Your task to perform on an android device: Show me productivity apps on the Play Store Image 0: 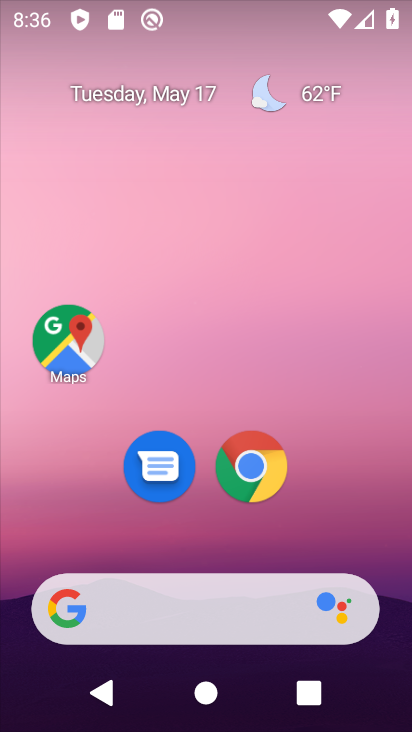
Step 0: drag from (218, 450) to (238, 12)
Your task to perform on an android device: Show me productivity apps on the Play Store Image 1: 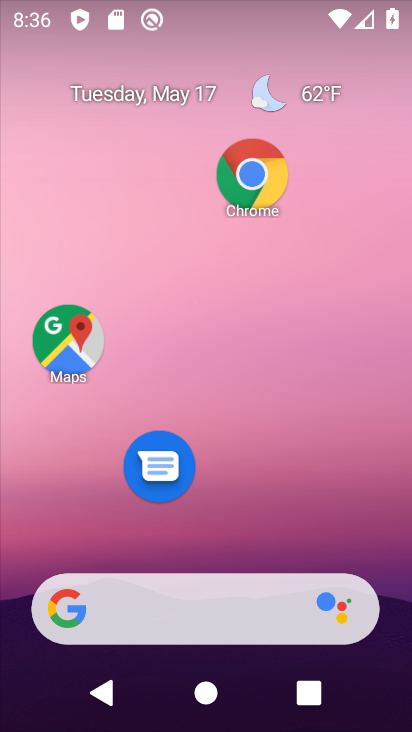
Step 1: drag from (204, 538) to (201, 200)
Your task to perform on an android device: Show me productivity apps on the Play Store Image 2: 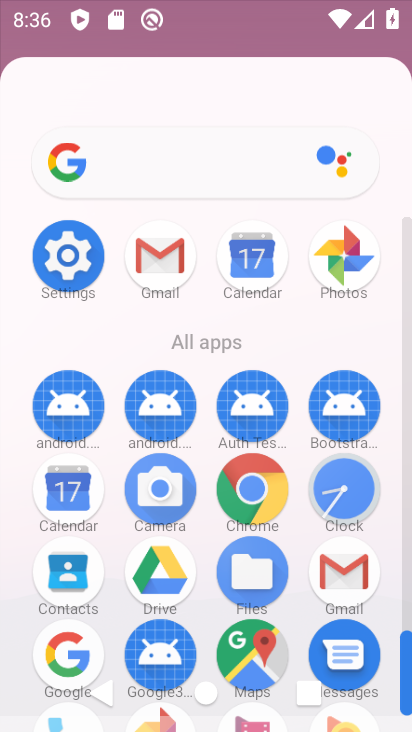
Step 2: click (197, 58)
Your task to perform on an android device: Show me productivity apps on the Play Store Image 3: 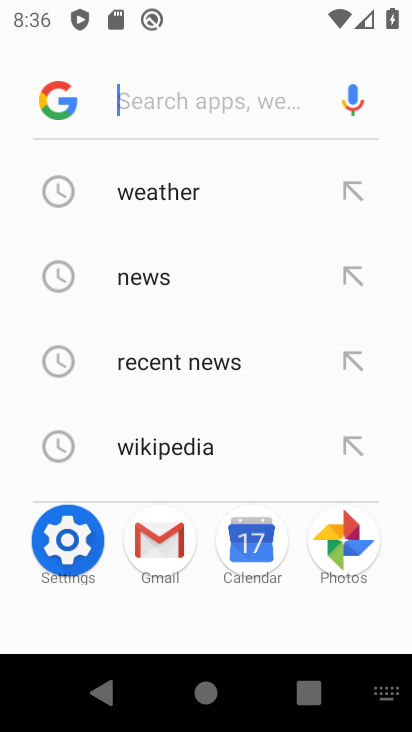
Step 3: press back button
Your task to perform on an android device: Show me productivity apps on the Play Store Image 4: 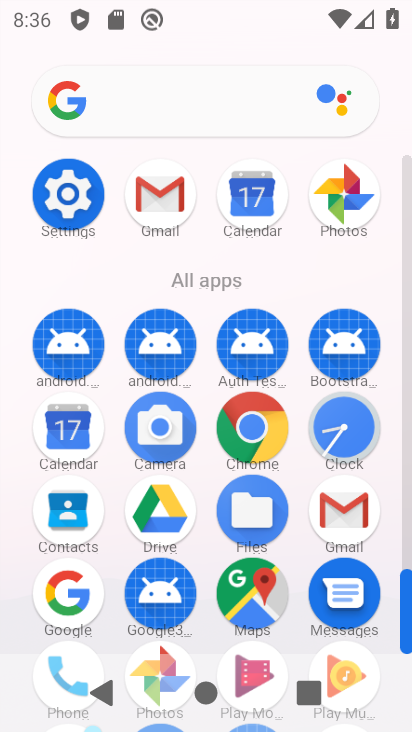
Step 4: drag from (203, 263) to (203, 175)
Your task to perform on an android device: Show me productivity apps on the Play Store Image 5: 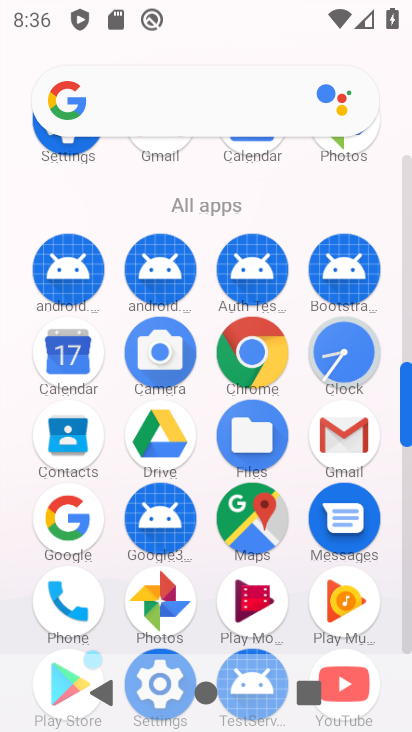
Step 5: drag from (204, 533) to (190, 186)
Your task to perform on an android device: Show me productivity apps on the Play Store Image 6: 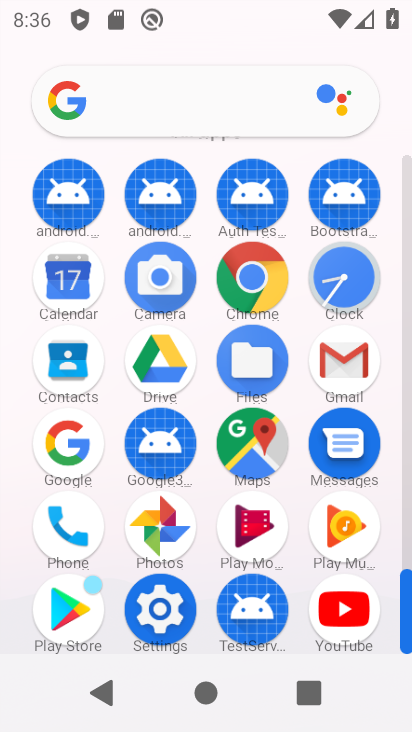
Step 6: click (61, 603)
Your task to perform on an android device: Show me productivity apps on the Play Store Image 7: 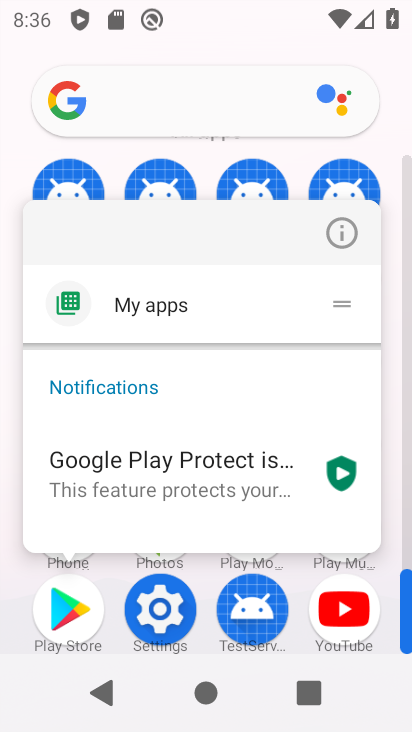
Step 7: click (61, 603)
Your task to perform on an android device: Show me productivity apps on the Play Store Image 8: 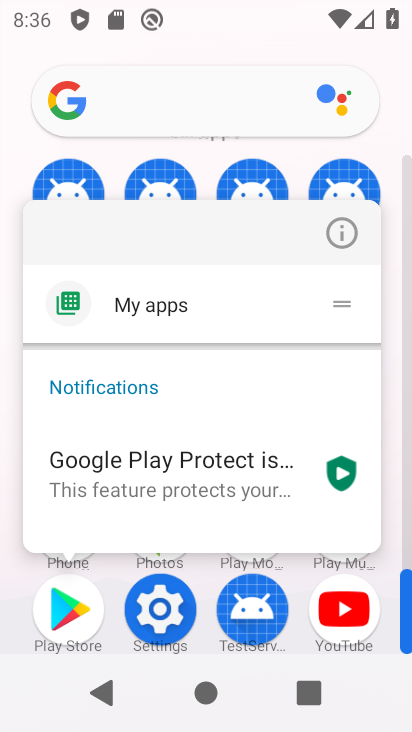
Step 8: click (65, 601)
Your task to perform on an android device: Show me productivity apps on the Play Store Image 9: 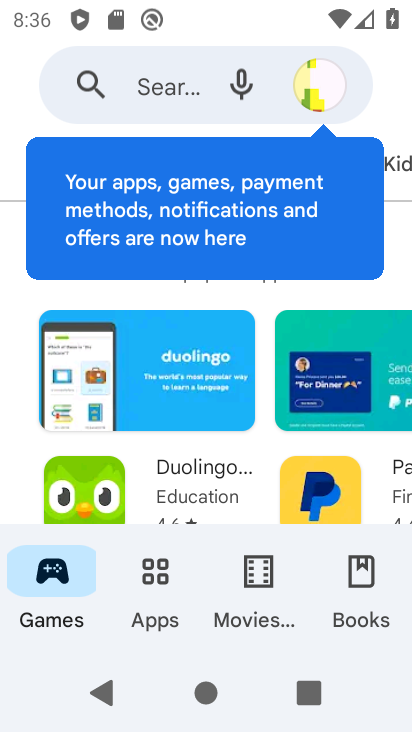
Step 9: click (158, 590)
Your task to perform on an android device: Show me productivity apps on the Play Store Image 10: 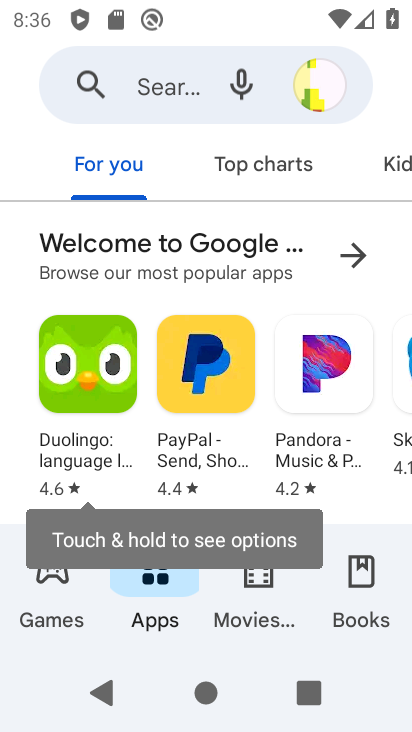
Step 10: drag from (396, 161) to (92, 179)
Your task to perform on an android device: Show me productivity apps on the Play Store Image 11: 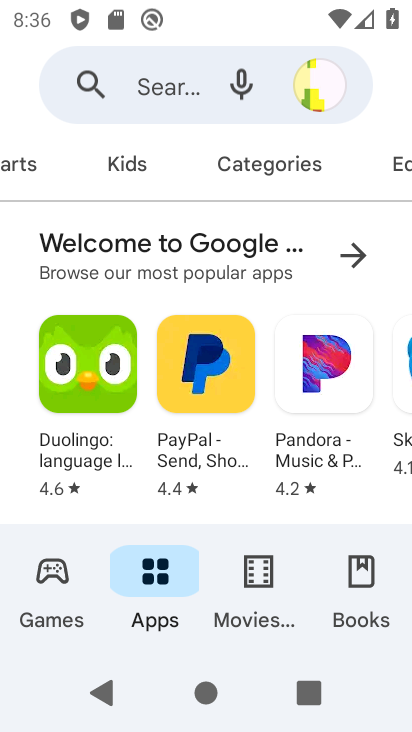
Step 11: click (248, 172)
Your task to perform on an android device: Show me productivity apps on the Play Store Image 12: 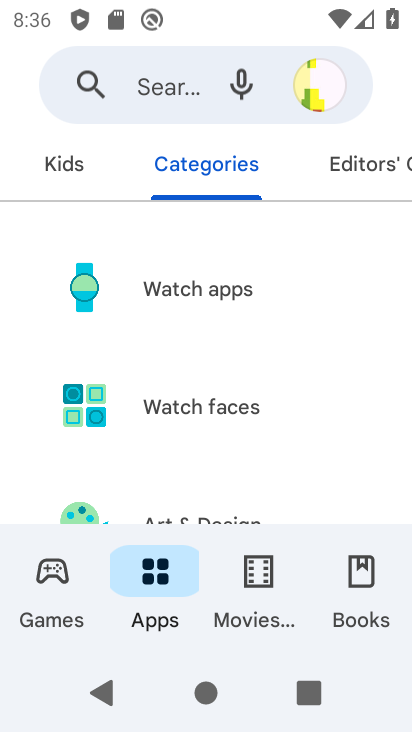
Step 12: drag from (192, 505) to (201, 44)
Your task to perform on an android device: Show me productivity apps on the Play Store Image 13: 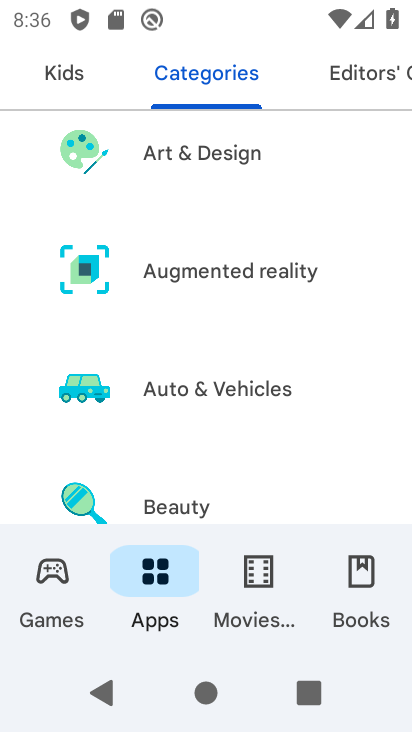
Step 13: drag from (217, 506) to (253, 64)
Your task to perform on an android device: Show me productivity apps on the Play Store Image 14: 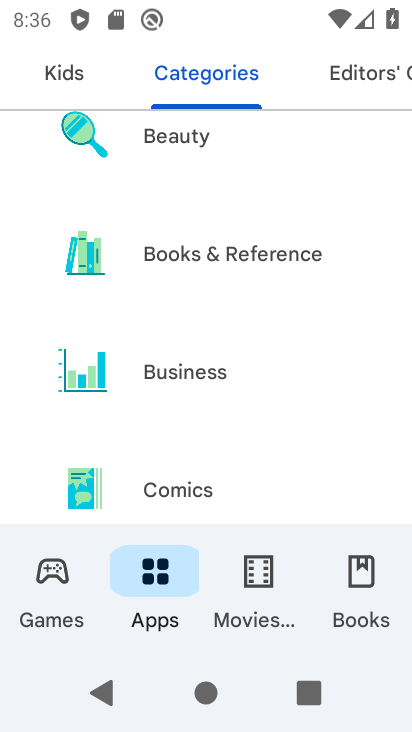
Step 14: drag from (236, 509) to (267, 53)
Your task to perform on an android device: Show me productivity apps on the Play Store Image 15: 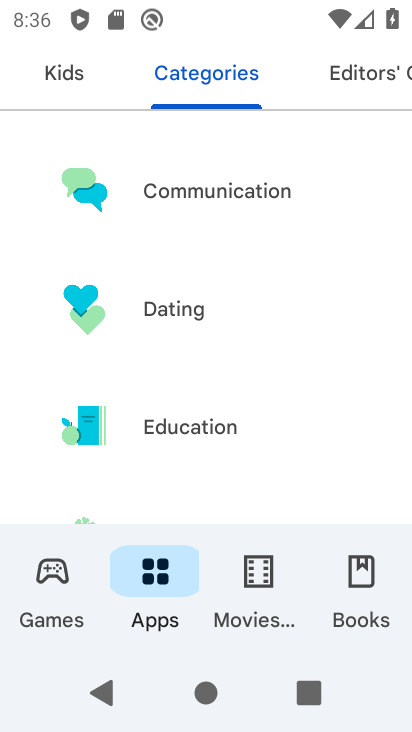
Step 15: drag from (236, 479) to (262, 58)
Your task to perform on an android device: Show me productivity apps on the Play Store Image 16: 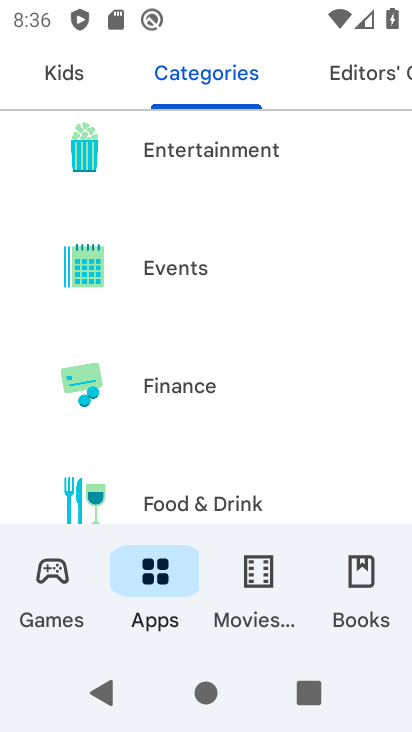
Step 16: drag from (226, 522) to (248, 4)
Your task to perform on an android device: Show me productivity apps on the Play Store Image 17: 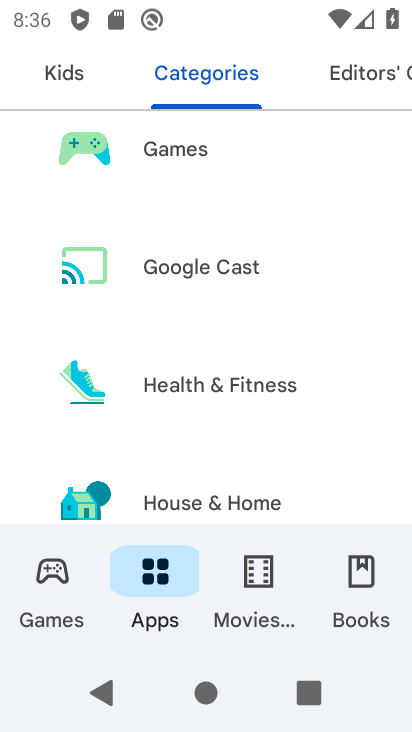
Step 17: drag from (230, 495) to (226, 8)
Your task to perform on an android device: Show me productivity apps on the Play Store Image 18: 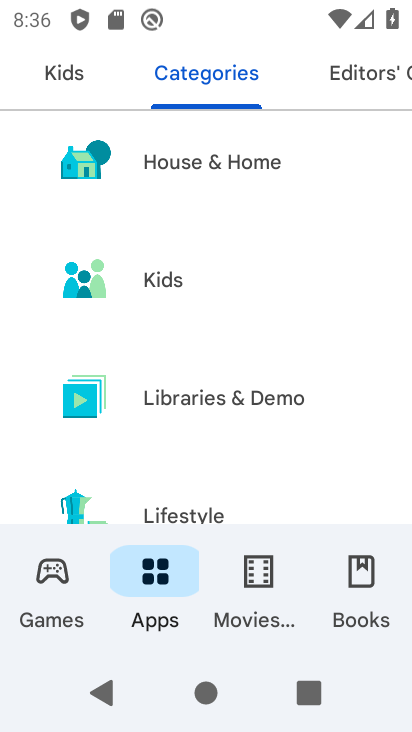
Step 18: drag from (220, 480) to (232, 25)
Your task to perform on an android device: Show me productivity apps on the Play Store Image 19: 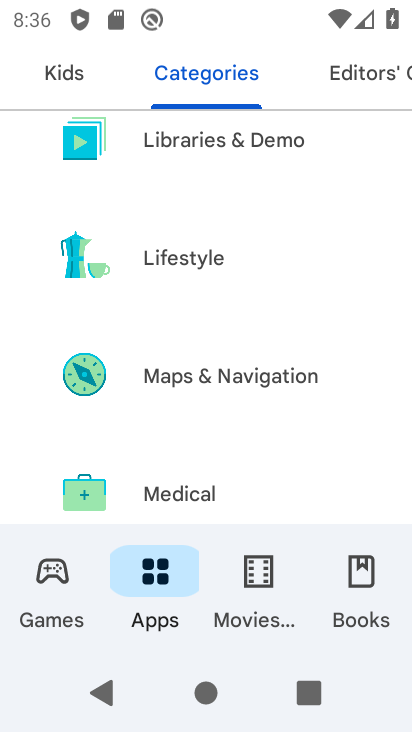
Step 19: drag from (225, 471) to (236, 0)
Your task to perform on an android device: Show me productivity apps on the Play Store Image 20: 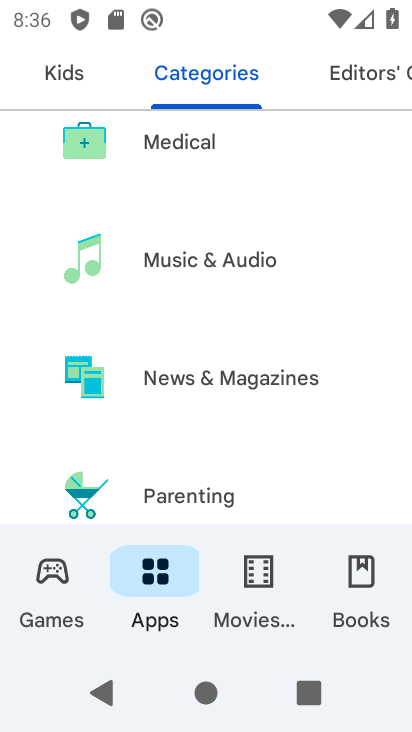
Step 20: drag from (228, 487) to (244, 0)
Your task to perform on an android device: Show me productivity apps on the Play Store Image 21: 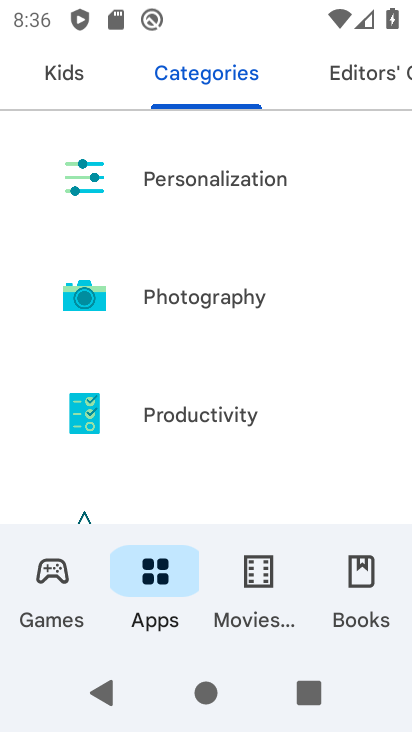
Step 21: click (234, 426)
Your task to perform on an android device: Show me productivity apps on the Play Store Image 22: 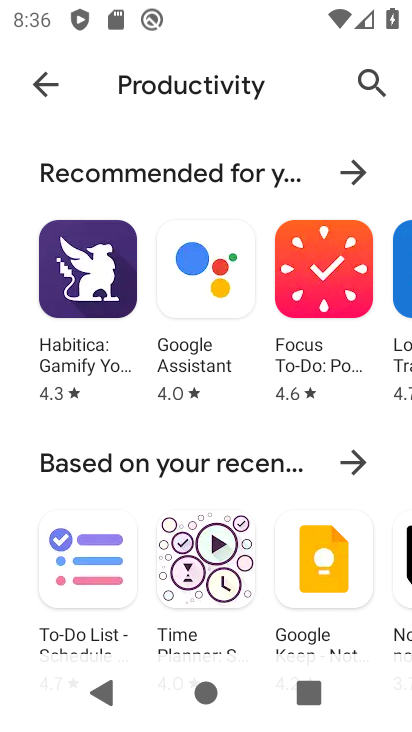
Step 22: task complete